Your task to perform on an android device: Open Maps and search for coffee Image 0: 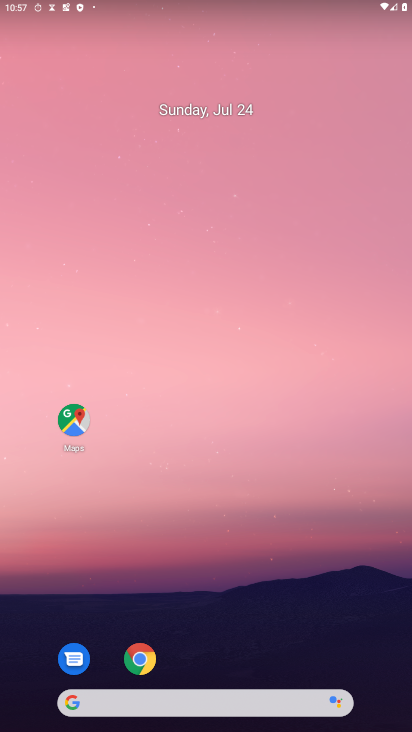
Step 0: click (74, 419)
Your task to perform on an android device: Open Maps and search for coffee Image 1: 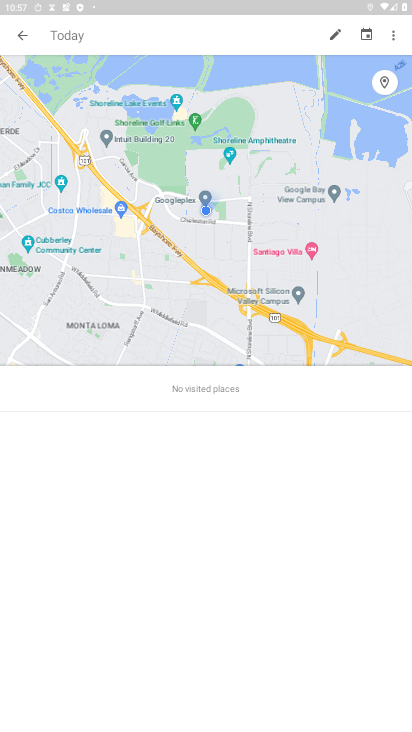
Step 1: press back button
Your task to perform on an android device: Open Maps and search for coffee Image 2: 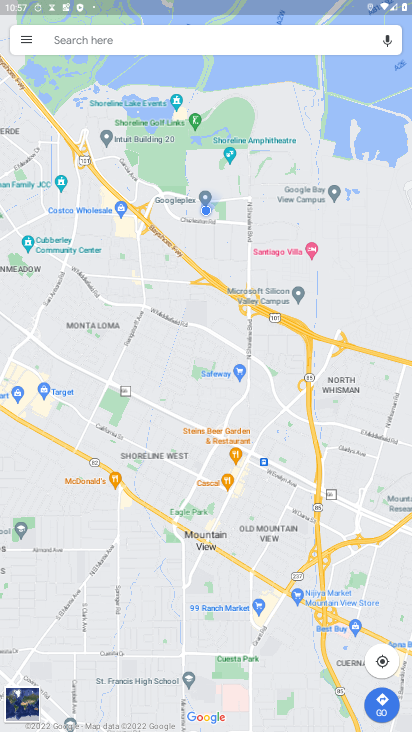
Step 2: click (301, 38)
Your task to perform on an android device: Open Maps and search for coffee Image 3: 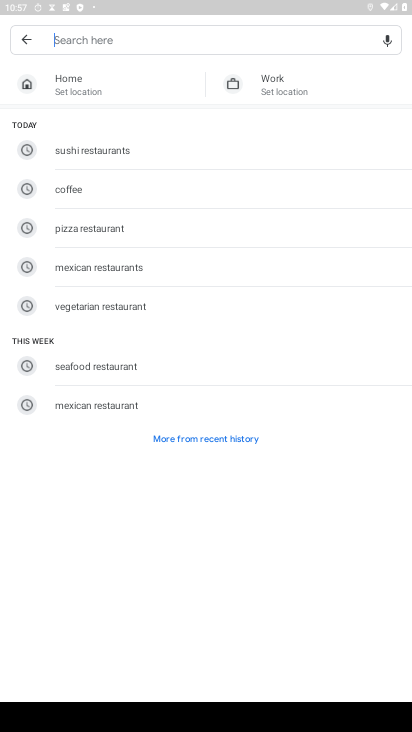
Step 3: type "coffee"
Your task to perform on an android device: Open Maps and search for coffee Image 4: 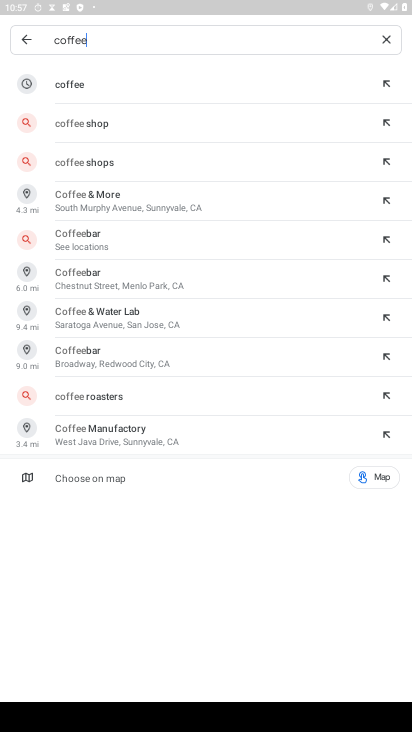
Step 4: click (74, 84)
Your task to perform on an android device: Open Maps and search for coffee Image 5: 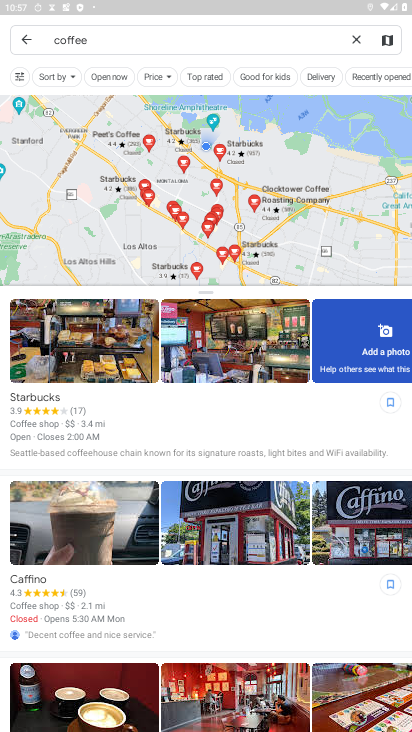
Step 5: task complete